Your task to perform on an android device: Open Chrome and go to the settings page Image 0: 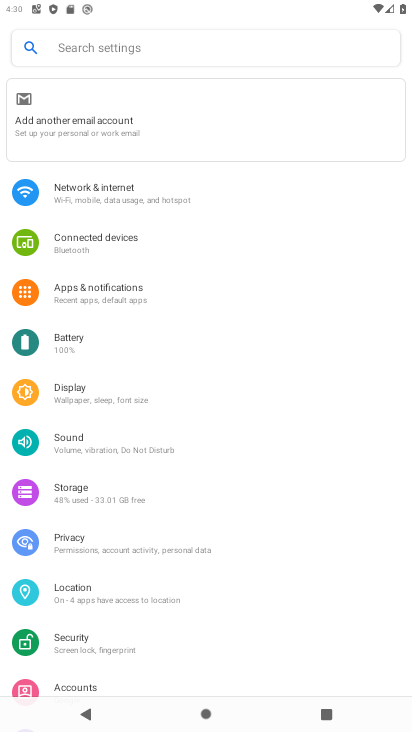
Step 0: press home button
Your task to perform on an android device: Open Chrome and go to the settings page Image 1: 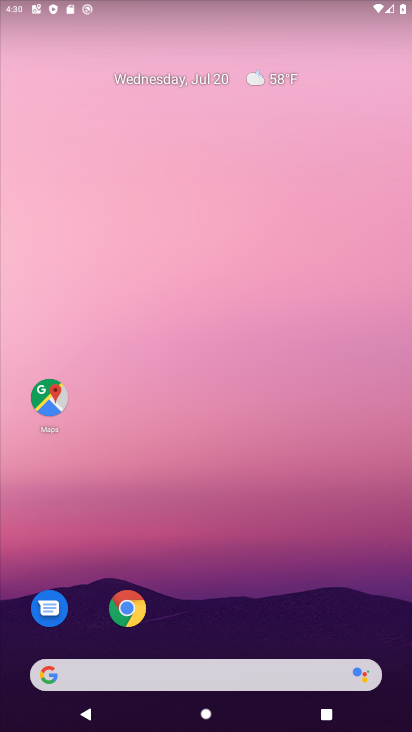
Step 1: click (136, 605)
Your task to perform on an android device: Open Chrome and go to the settings page Image 2: 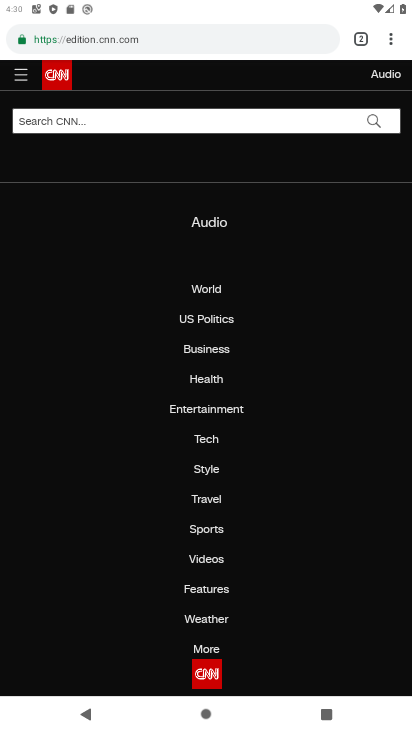
Step 2: click (395, 40)
Your task to perform on an android device: Open Chrome and go to the settings page Image 3: 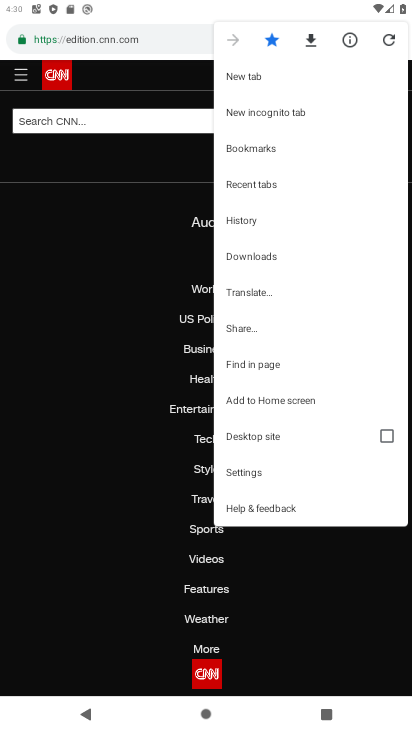
Step 3: click (271, 465)
Your task to perform on an android device: Open Chrome and go to the settings page Image 4: 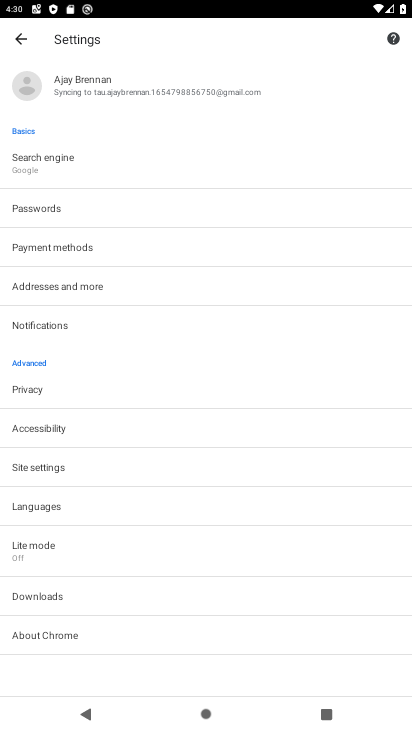
Step 4: task complete